Your task to perform on an android device: Open privacy settings Image 0: 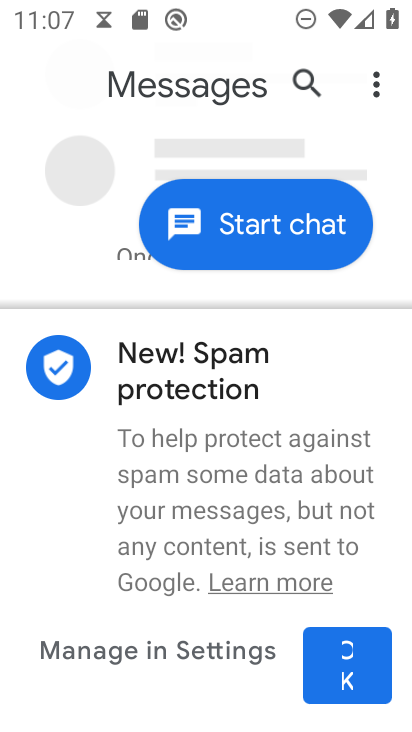
Step 0: press home button
Your task to perform on an android device: Open privacy settings Image 1: 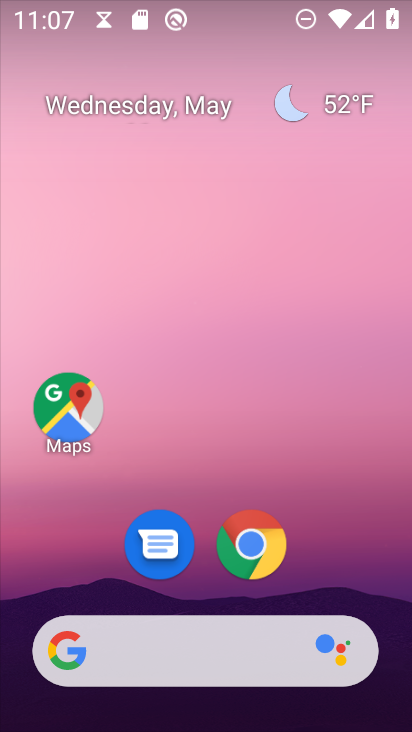
Step 1: drag from (211, 595) to (242, 36)
Your task to perform on an android device: Open privacy settings Image 2: 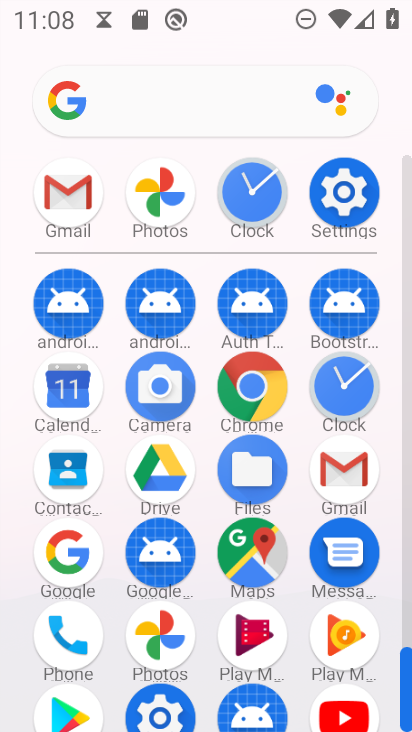
Step 2: click (339, 179)
Your task to perform on an android device: Open privacy settings Image 3: 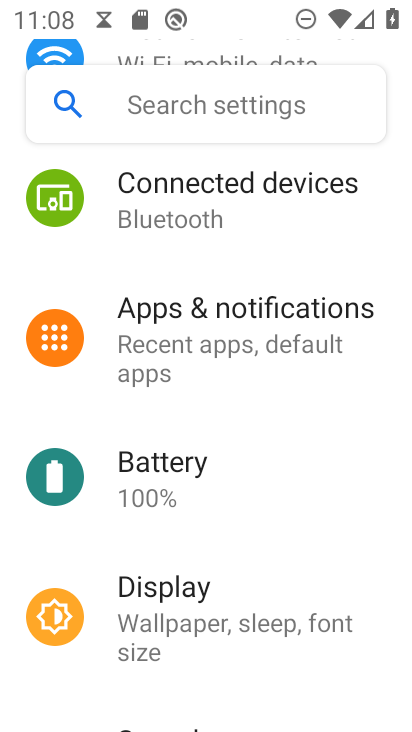
Step 3: drag from (157, 586) to (241, 173)
Your task to perform on an android device: Open privacy settings Image 4: 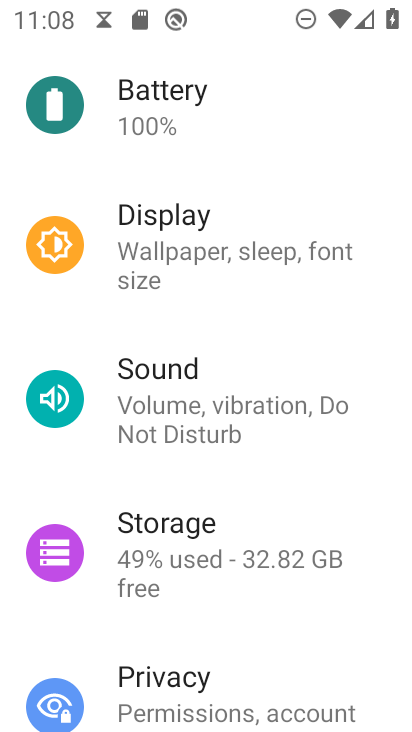
Step 4: drag from (115, 642) to (207, 279)
Your task to perform on an android device: Open privacy settings Image 5: 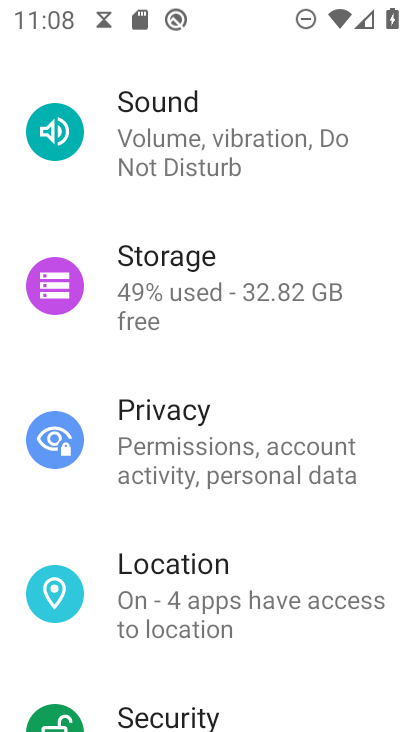
Step 5: click (157, 469)
Your task to perform on an android device: Open privacy settings Image 6: 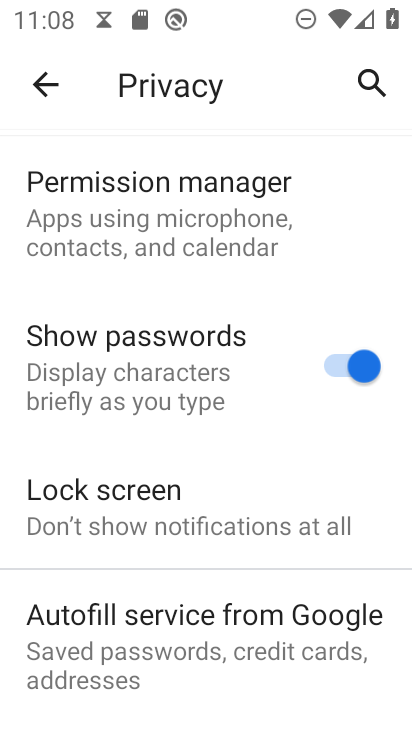
Step 6: task complete